Your task to perform on an android device: open chrome and create a bookmark for the current page Image 0: 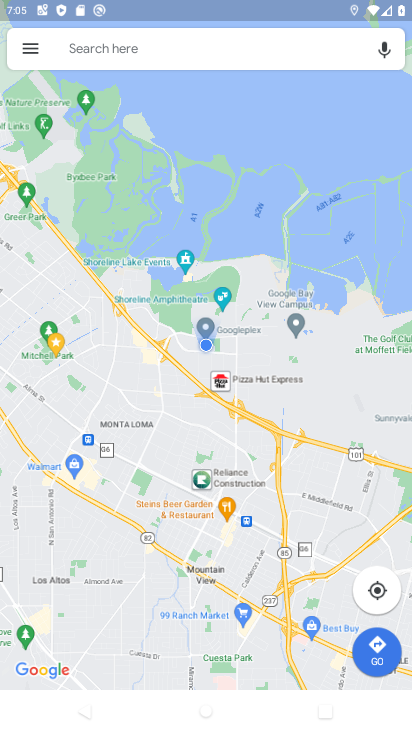
Step 0: press home button
Your task to perform on an android device: open chrome and create a bookmark for the current page Image 1: 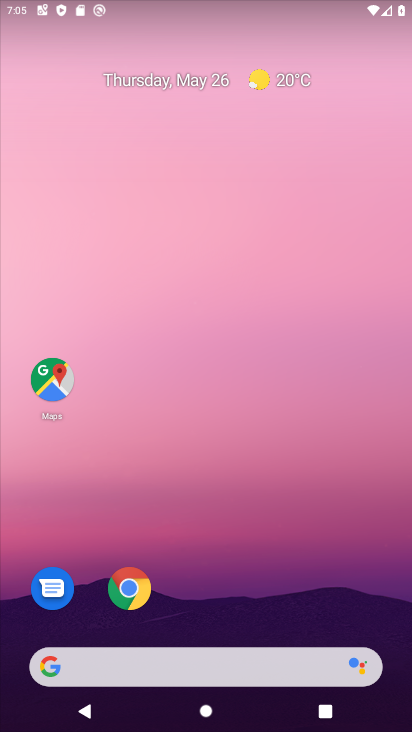
Step 1: drag from (387, 614) to (294, 35)
Your task to perform on an android device: open chrome and create a bookmark for the current page Image 2: 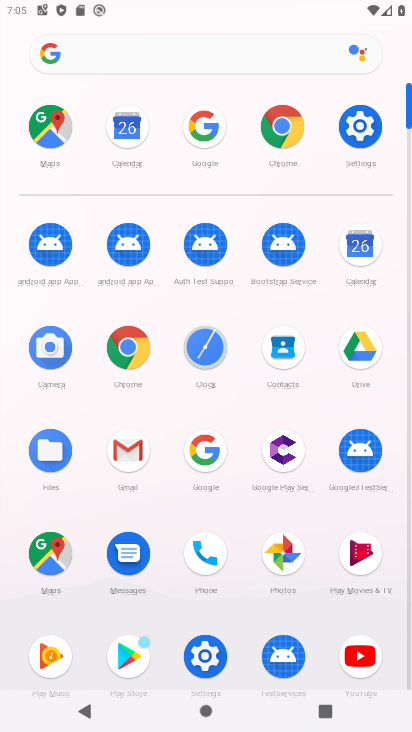
Step 2: click (270, 128)
Your task to perform on an android device: open chrome and create a bookmark for the current page Image 3: 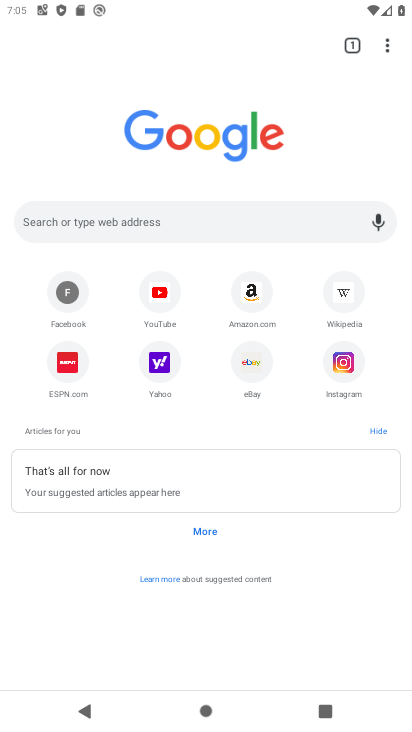
Step 3: click (387, 39)
Your task to perform on an android device: open chrome and create a bookmark for the current page Image 4: 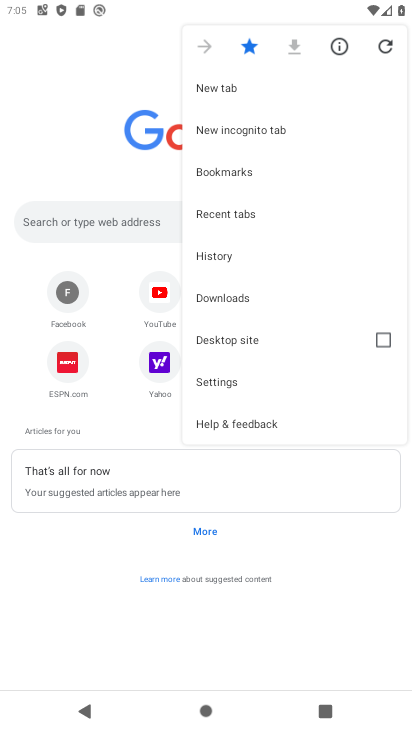
Step 4: task complete